Your task to perform on an android device: add a contact in the contacts app Image 0: 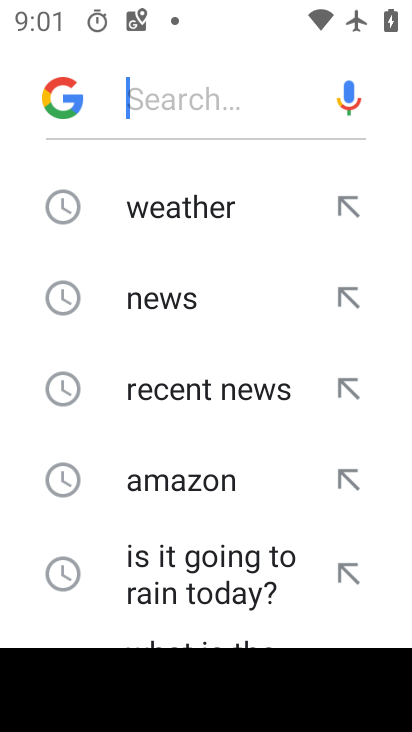
Step 0: press home button
Your task to perform on an android device: add a contact in the contacts app Image 1: 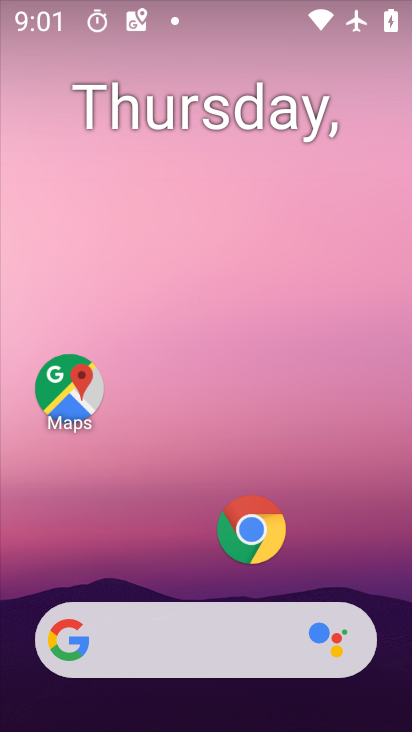
Step 1: drag from (193, 573) to (210, 127)
Your task to perform on an android device: add a contact in the contacts app Image 2: 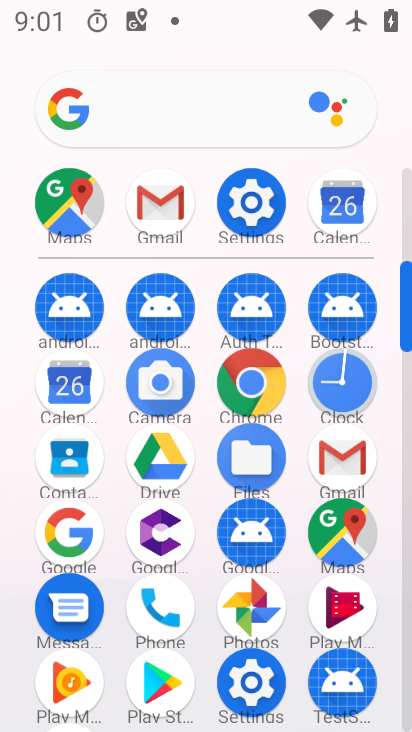
Step 2: click (70, 446)
Your task to perform on an android device: add a contact in the contacts app Image 3: 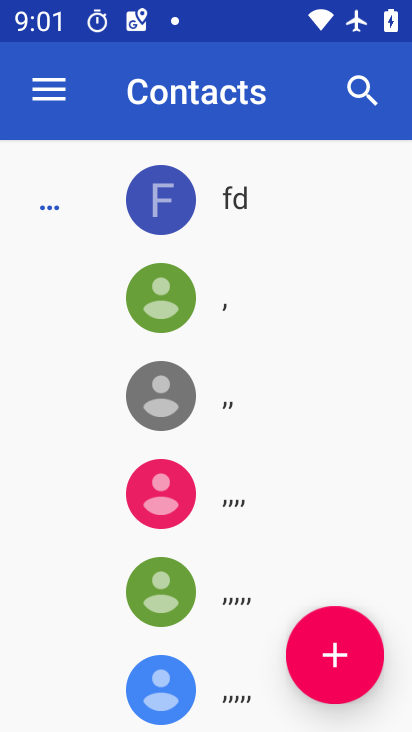
Step 3: click (335, 648)
Your task to perform on an android device: add a contact in the contacts app Image 4: 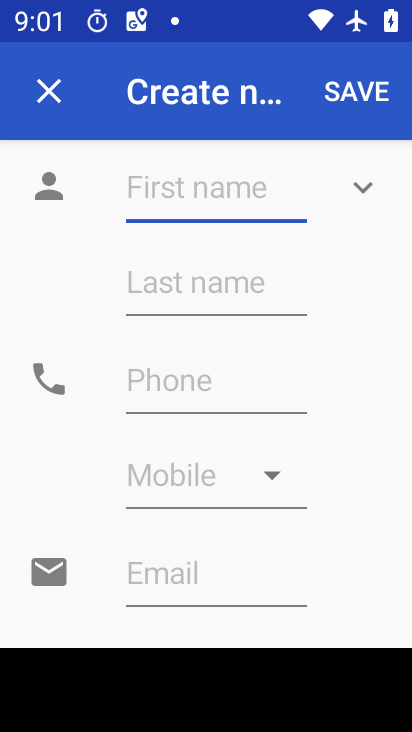
Step 4: type "hvtfrxdrtgh"
Your task to perform on an android device: add a contact in the contacts app Image 5: 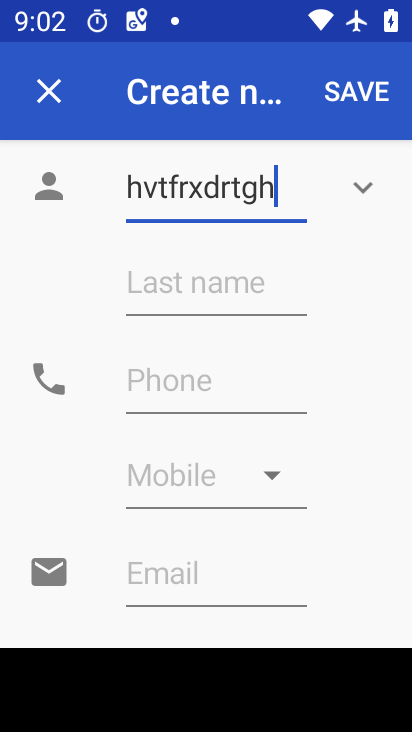
Step 5: click (348, 98)
Your task to perform on an android device: add a contact in the contacts app Image 6: 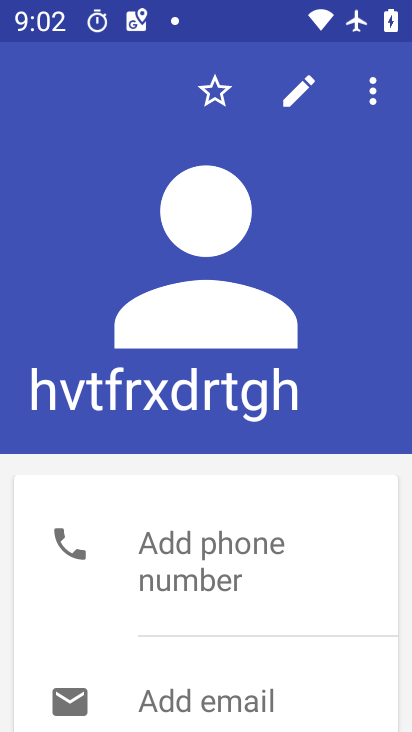
Step 6: task complete